Your task to perform on an android device: Open Google Chrome Image 0: 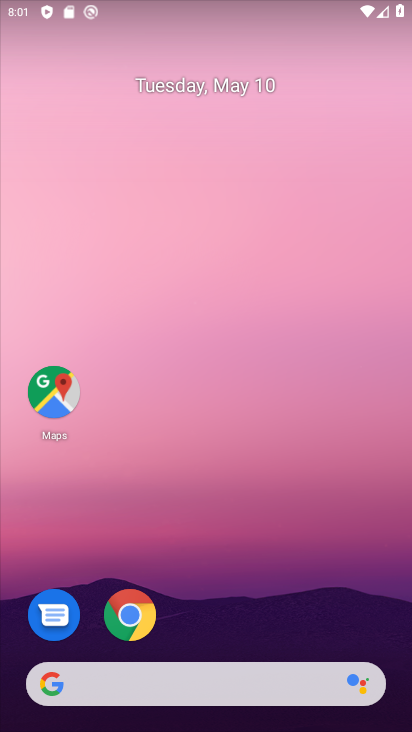
Step 0: drag from (231, 591) to (244, 197)
Your task to perform on an android device: Open Google Chrome Image 1: 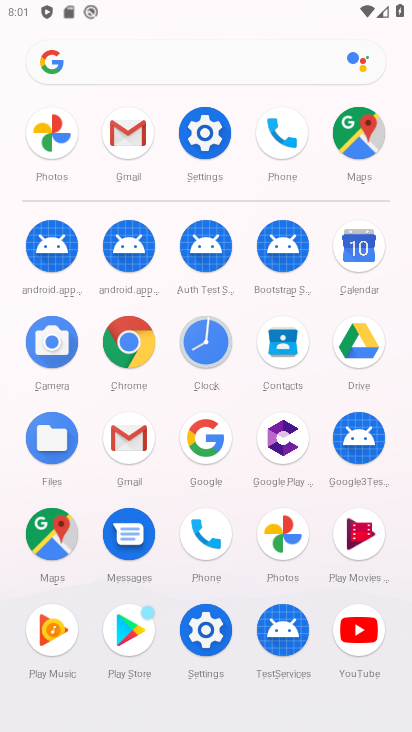
Step 1: click (120, 346)
Your task to perform on an android device: Open Google Chrome Image 2: 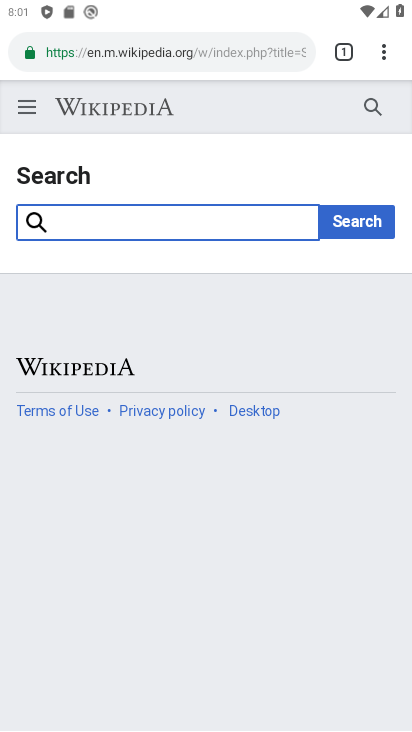
Step 2: task complete